Your task to perform on an android device: turn off sleep mode Image 0: 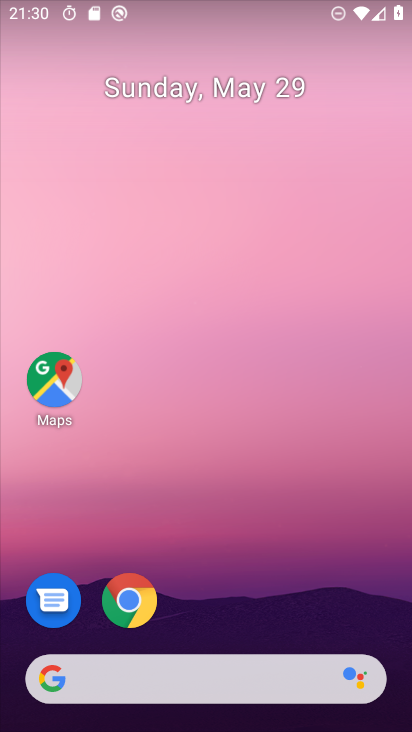
Step 0: drag from (208, 578) to (260, 164)
Your task to perform on an android device: turn off sleep mode Image 1: 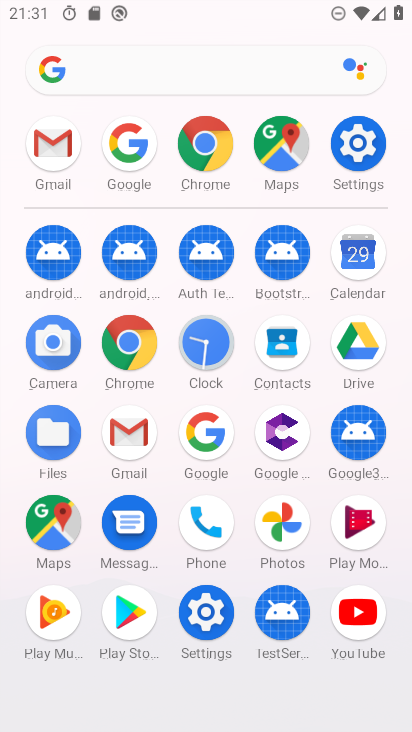
Step 1: click (192, 621)
Your task to perform on an android device: turn off sleep mode Image 2: 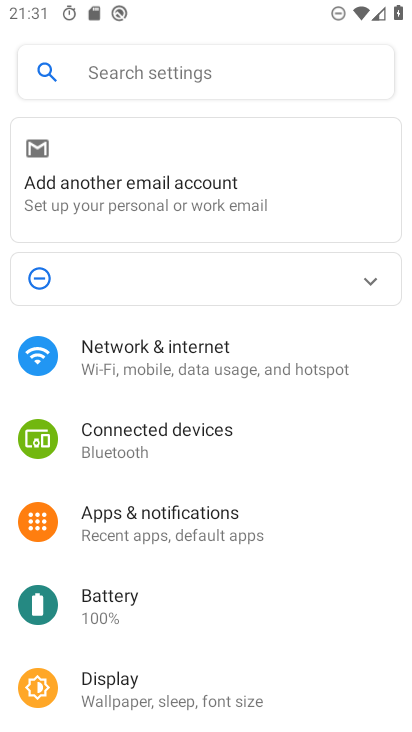
Step 2: click (218, 69)
Your task to perform on an android device: turn off sleep mode Image 3: 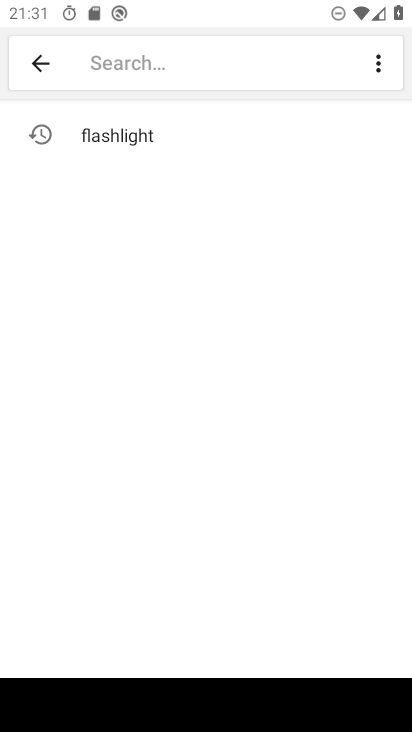
Step 3: type "sleep mode"
Your task to perform on an android device: turn off sleep mode Image 4: 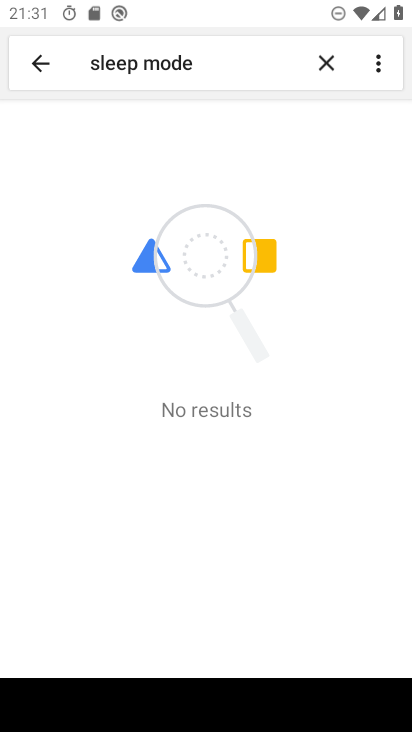
Step 4: task complete